Your task to perform on an android device: turn off smart reply in the gmail app Image 0: 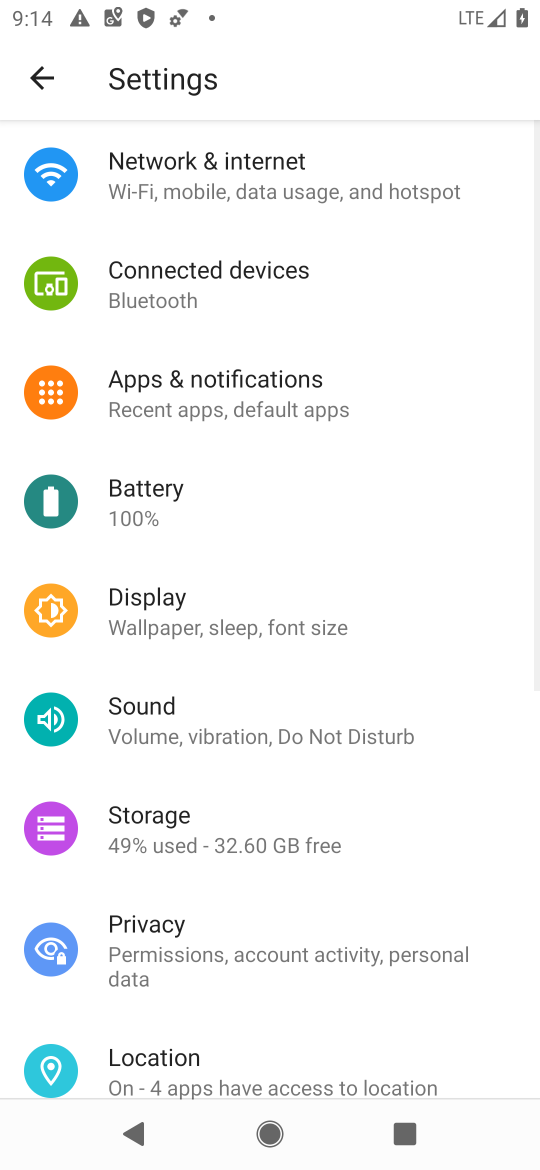
Step 0: press home button
Your task to perform on an android device: turn off smart reply in the gmail app Image 1: 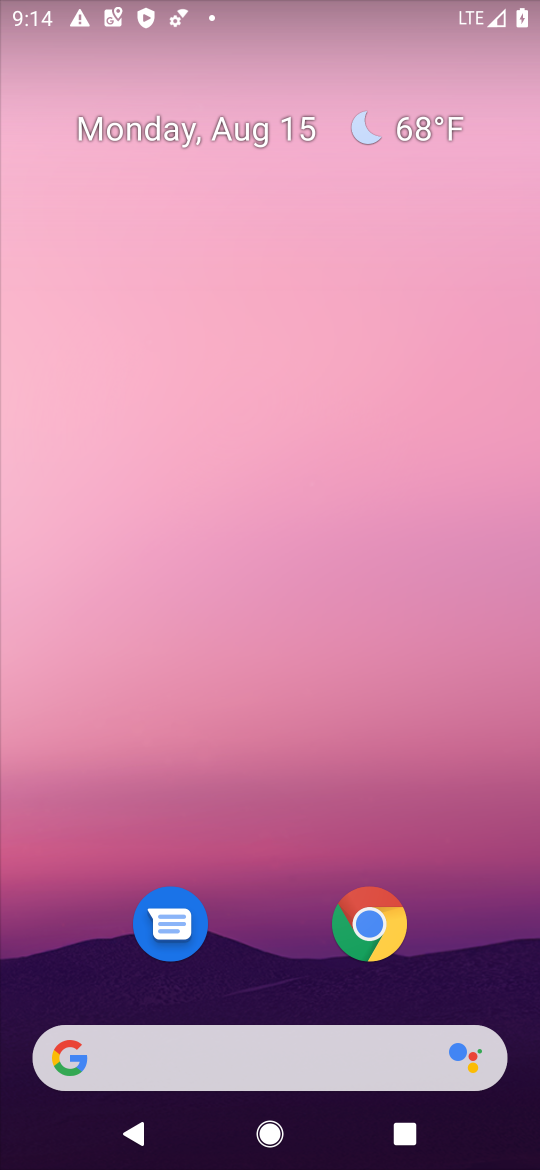
Step 1: drag from (507, 991) to (398, 267)
Your task to perform on an android device: turn off smart reply in the gmail app Image 2: 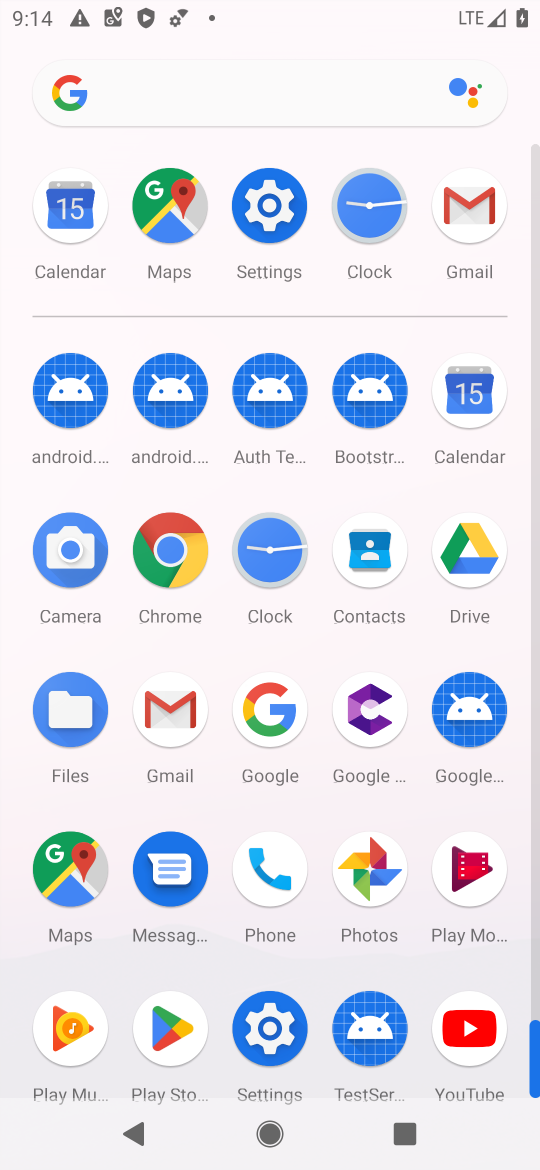
Step 2: click (166, 708)
Your task to perform on an android device: turn off smart reply in the gmail app Image 3: 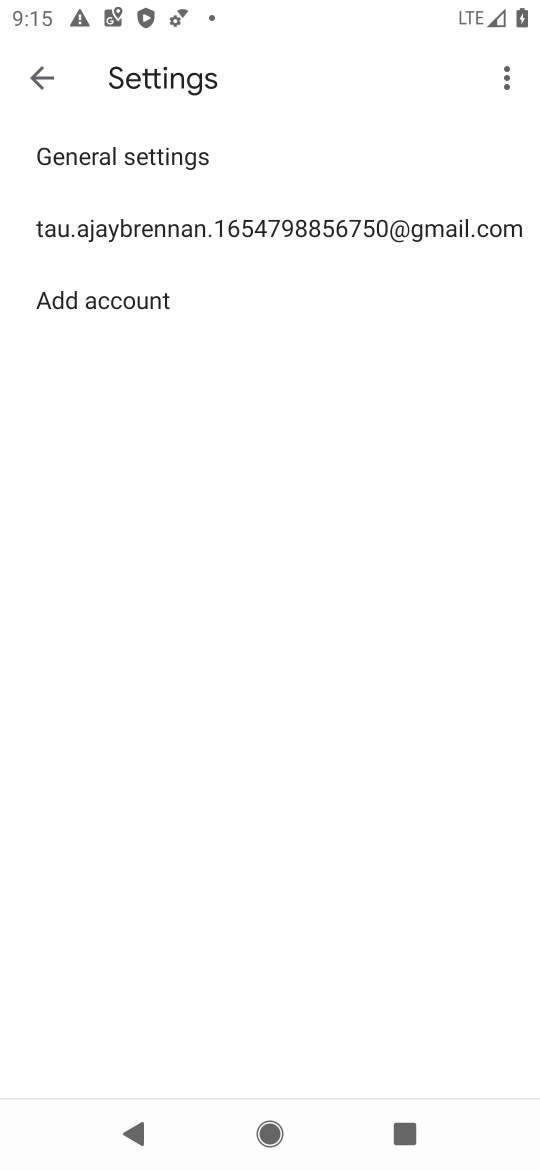
Step 3: click (202, 227)
Your task to perform on an android device: turn off smart reply in the gmail app Image 4: 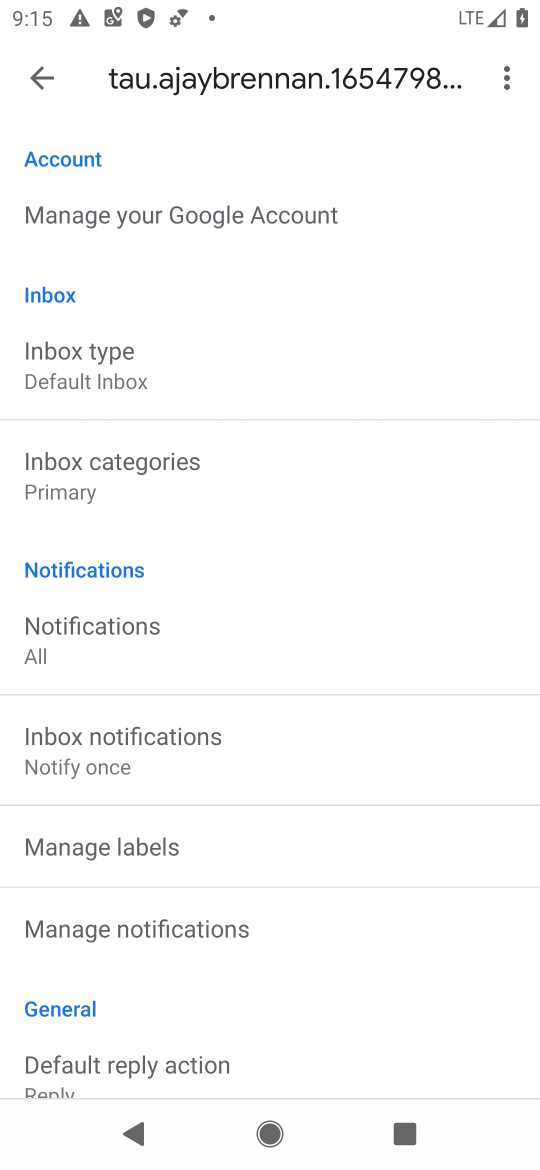
Step 4: drag from (257, 914) to (267, 296)
Your task to perform on an android device: turn off smart reply in the gmail app Image 5: 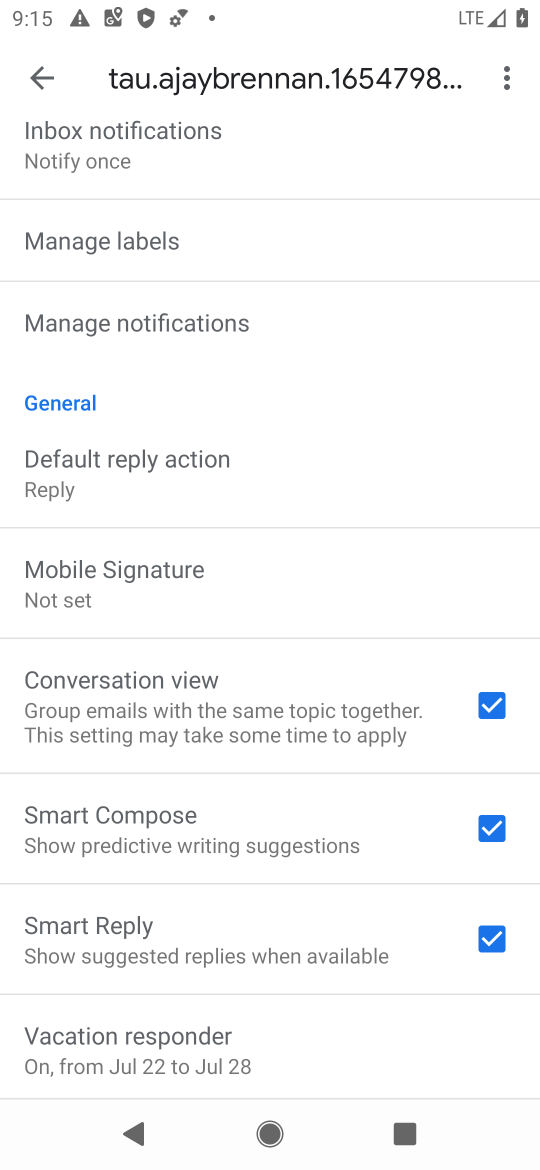
Step 5: drag from (314, 859) to (261, 466)
Your task to perform on an android device: turn off smart reply in the gmail app Image 6: 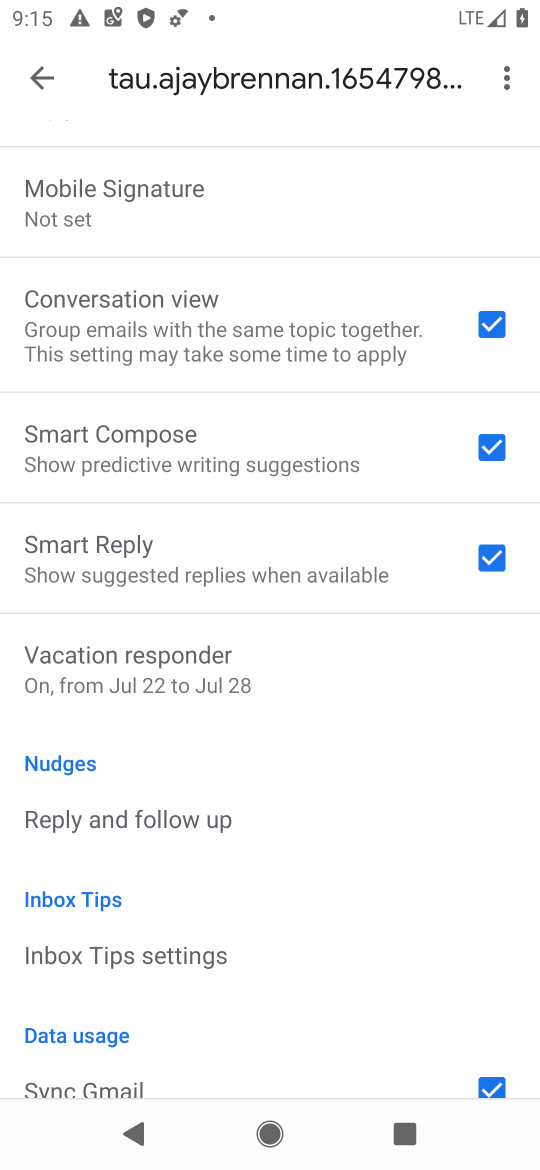
Step 6: click (495, 551)
Your task to perform on an android device: turn off smart reply in the gmail app Image 7: 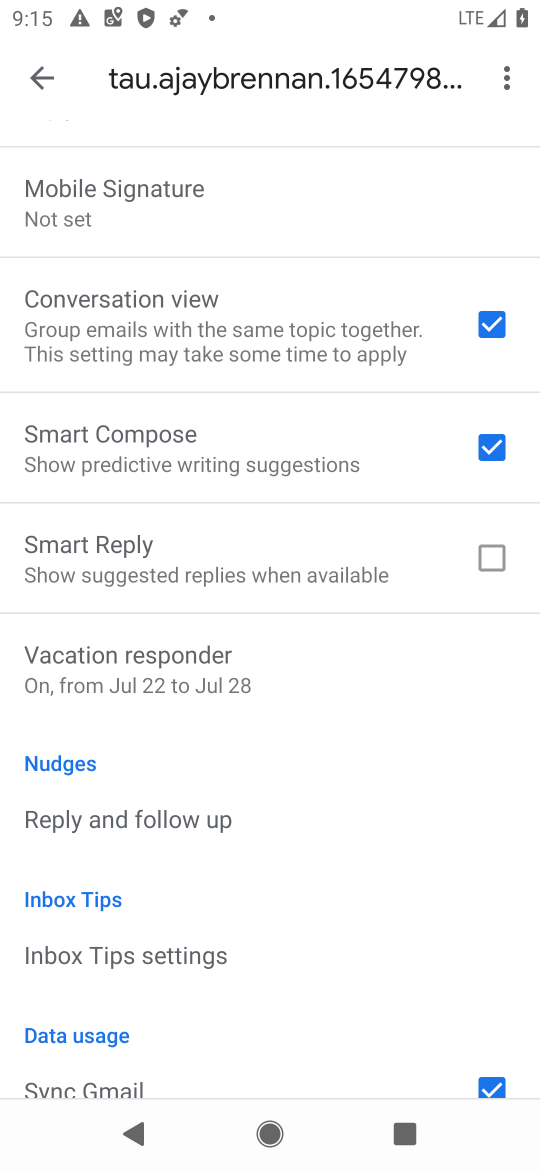
Step 7: task complete